Your task to perform on an android device: install app "ZOOM Cloud Meetings" Image 0: 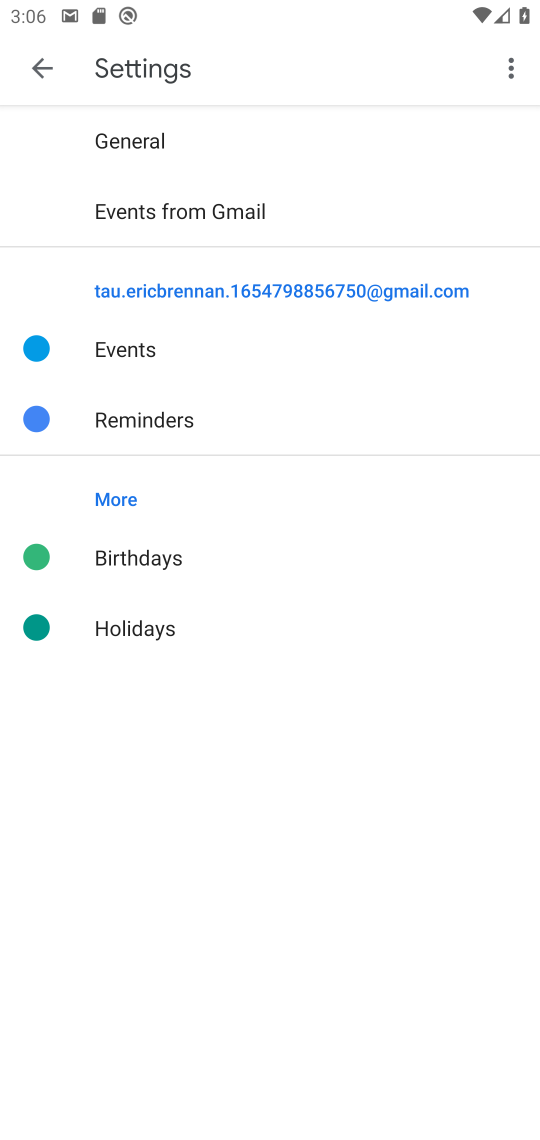
Step 0: press home button
Your task to perform on an android device: install app "ZOOM Cloud Meetings" Image 1: 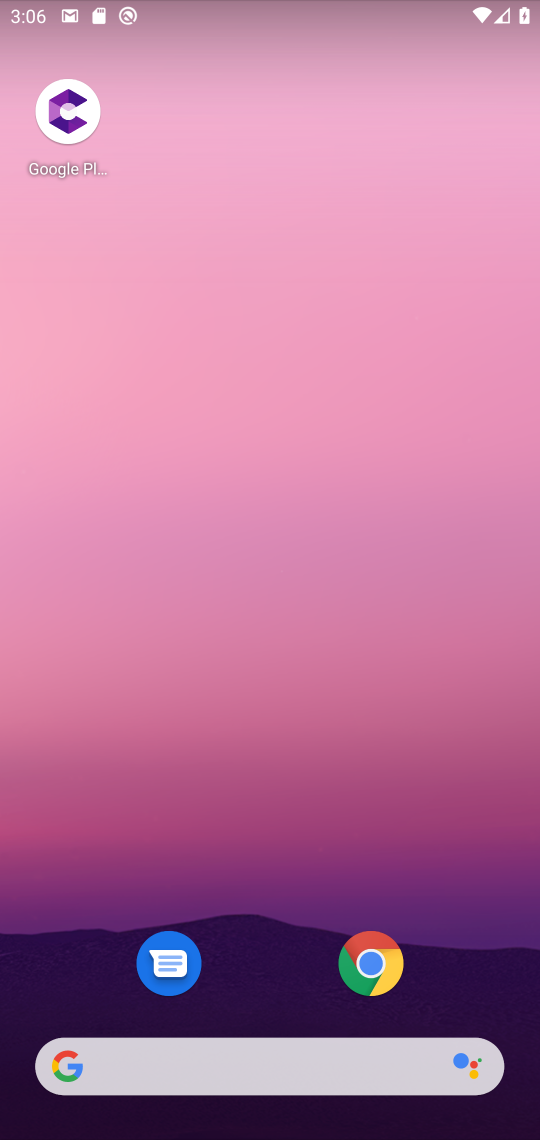
Step 1: drag from (284, 888) to (354, 130)
Your task to perform on an android device: install app "ZOOM Cloud Meetings" Image 2: 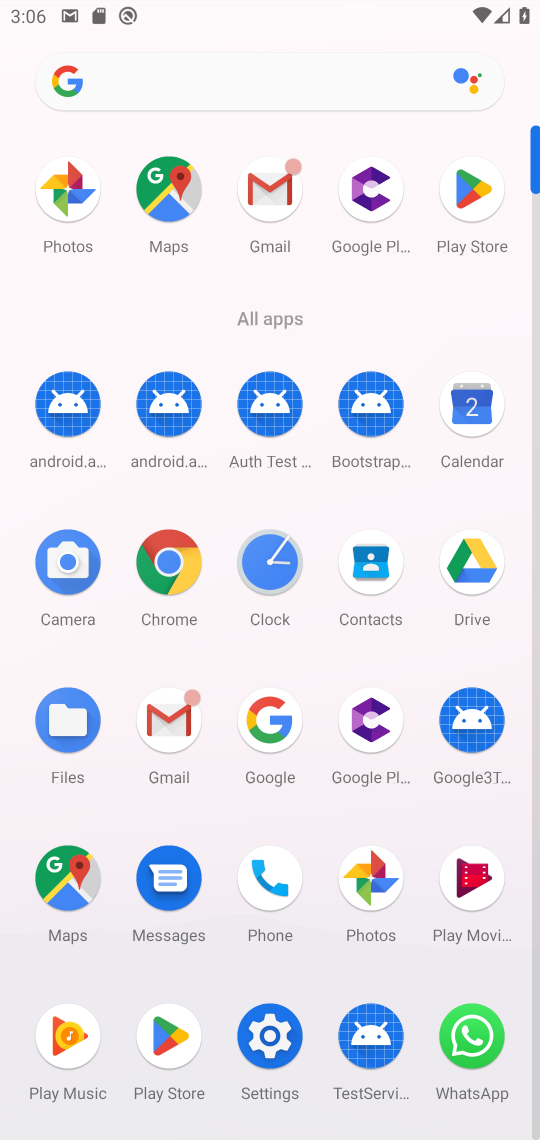
Step 2: click (455, 190)
Your task to perform on an android device: install app "ZOOM Cloud Meetings" Image 3: 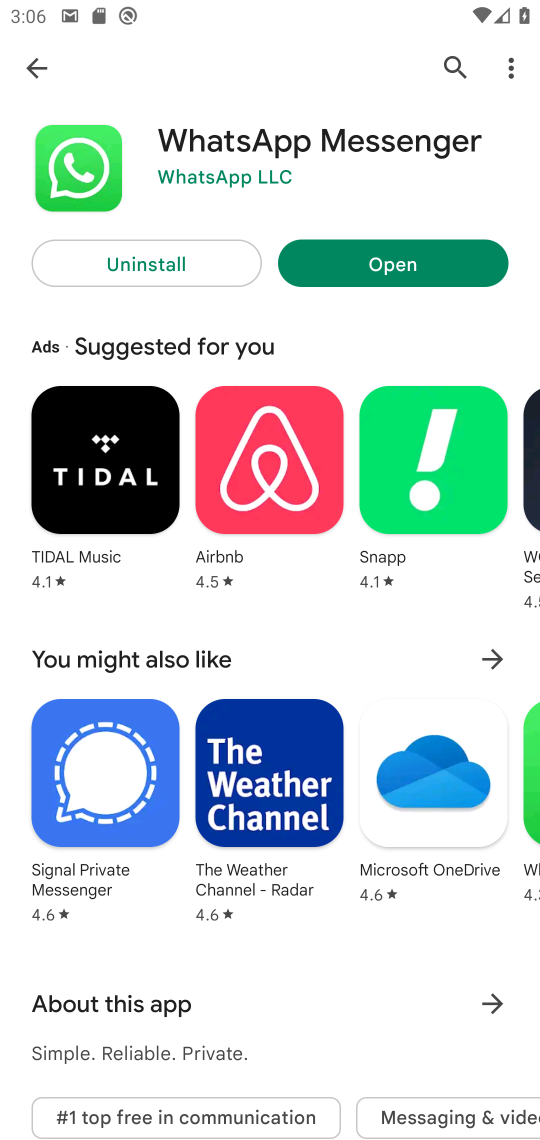
Step 3: click (452, 64)
Your task to perform on an android device: install app "ZOOM Cloud Meetings" Image 4: 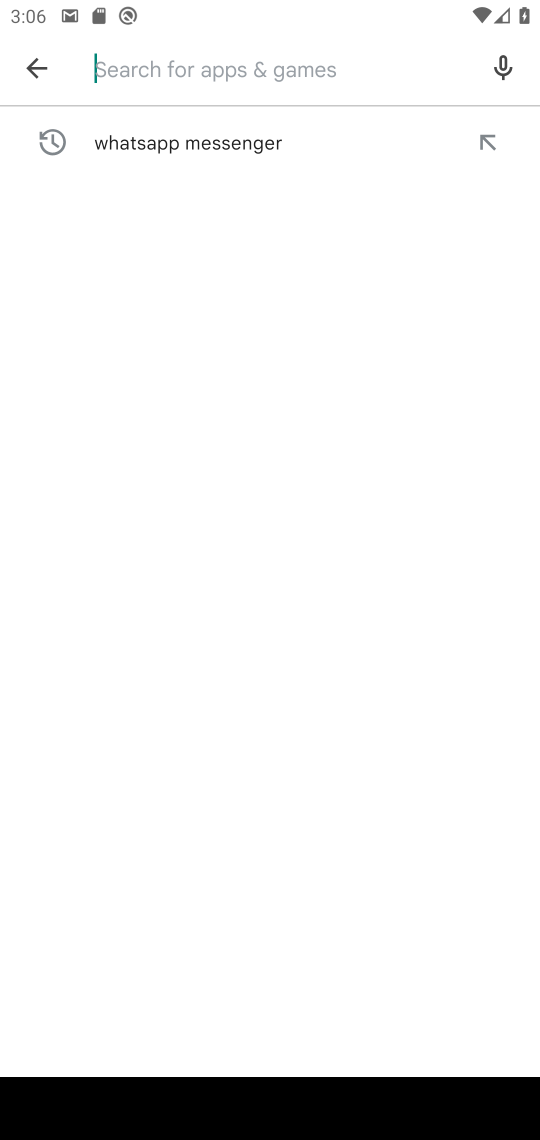
Step 4: type "zoom cloud meetings"
Your task to perform on an android device: install app "ZOOM Cloud Meetings" Image 5: 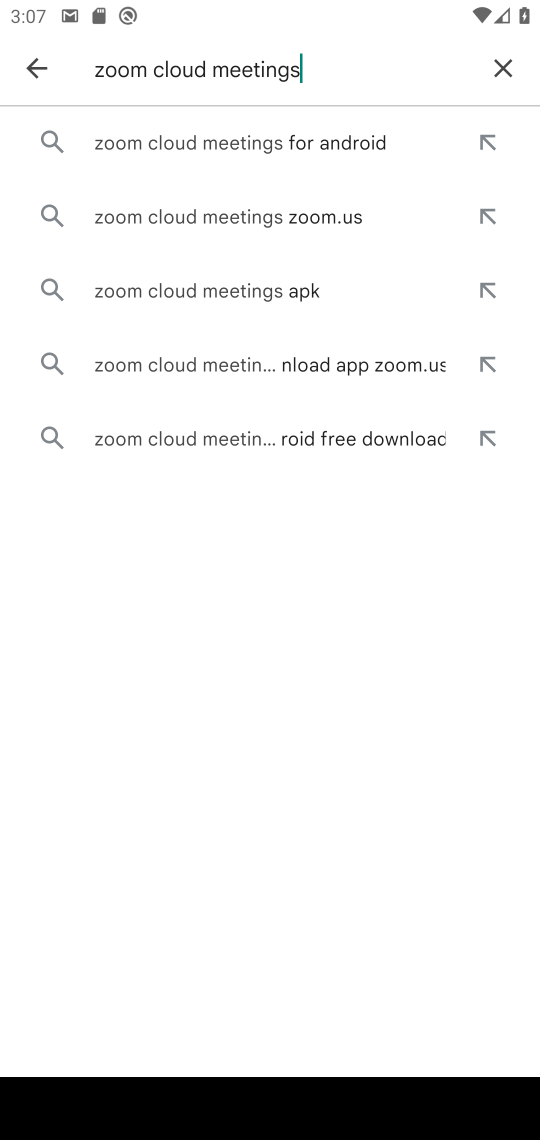
Step 5: click (304, 124)
Your task to perform on an android device: install app "ZOOM Cloud Meetings" Image 6: 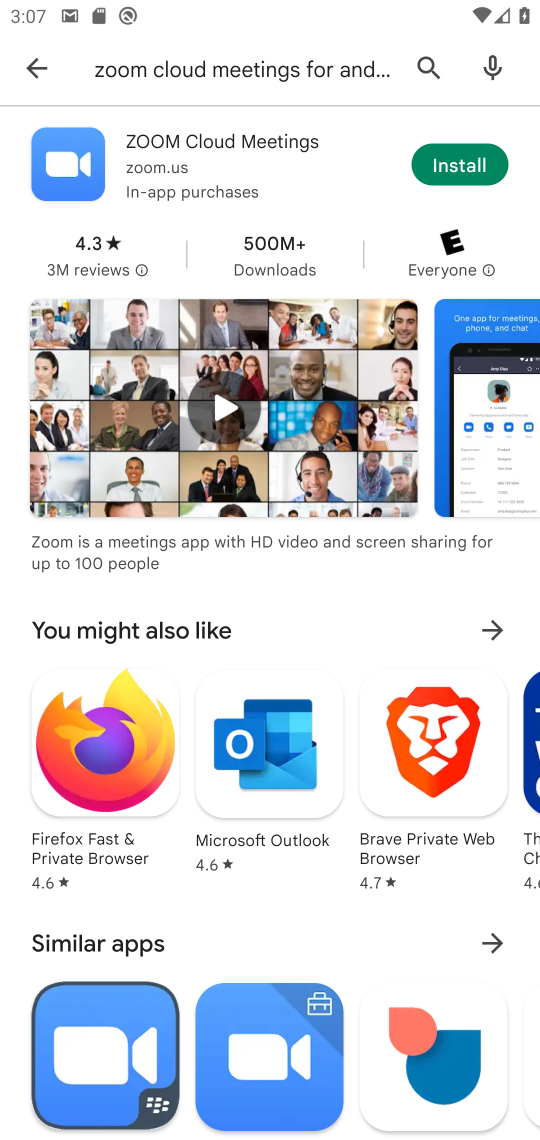
Step 6: click (295, 139)
Your task to perform on an android device: install app "ZOOM Cloud Meetings" Image 7: 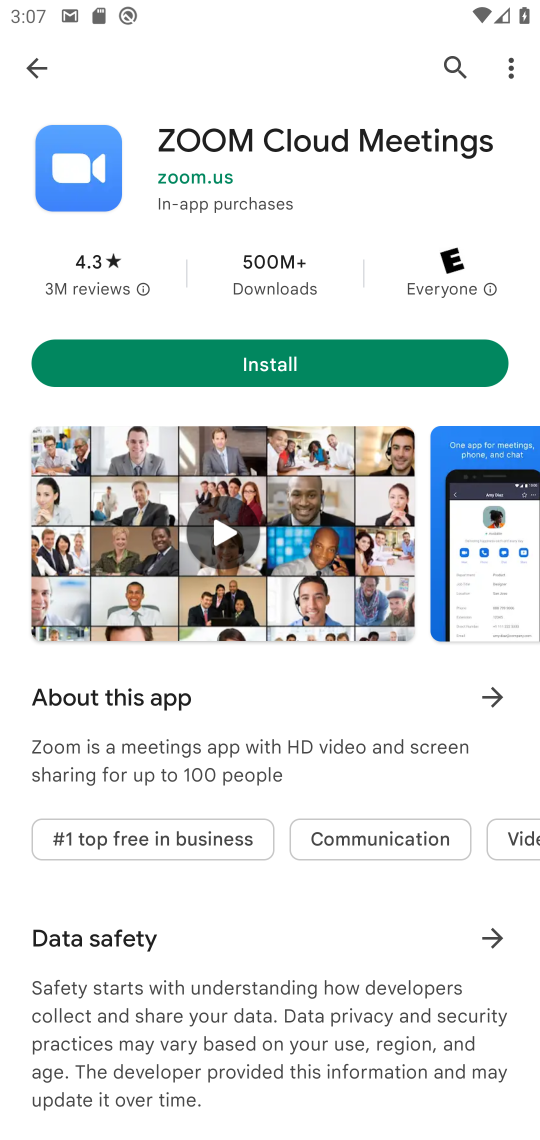
Step 7: click (328, 362)
Your task to perform on an android device: install app "ZOOM Cloud Meetings" Image 8: 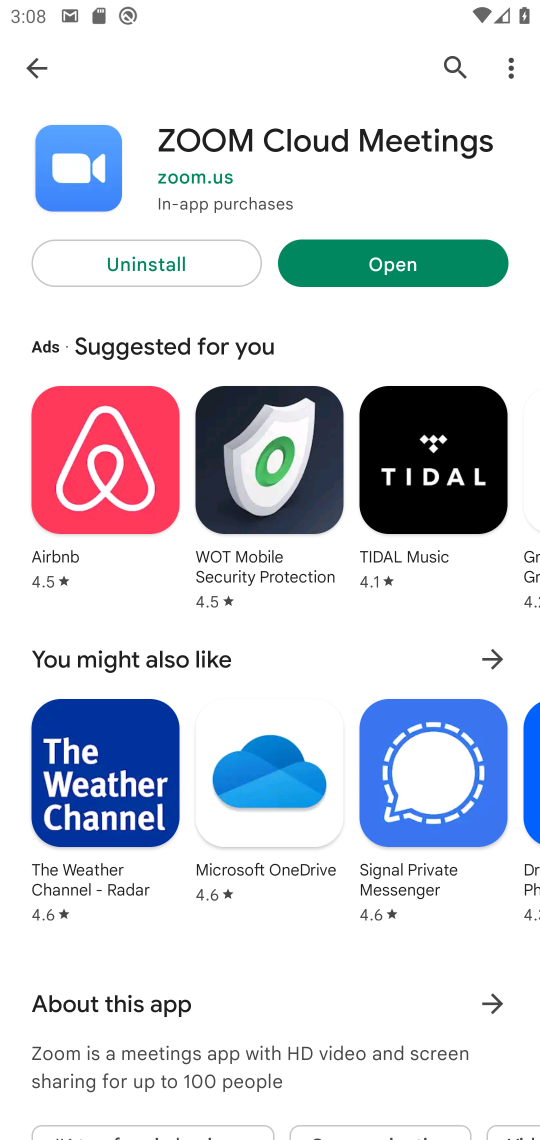
Step 8: task complete